Your task to perform on an android device: Open Android settings Image 0: 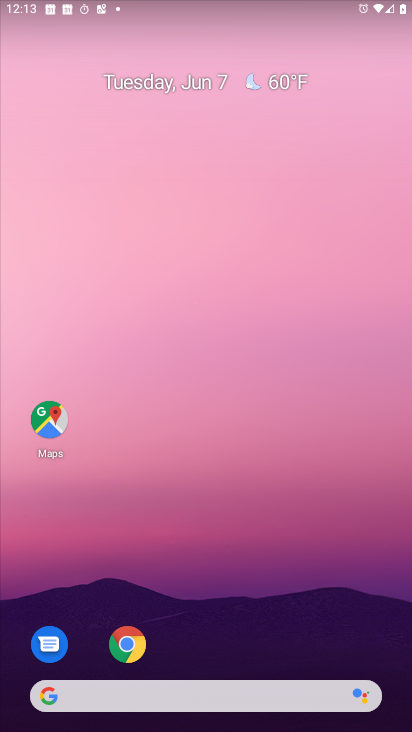
Step 0: drag from (116, 724) to (140, 76)
Your task to perform on an android device: Open Android settings Image 1: 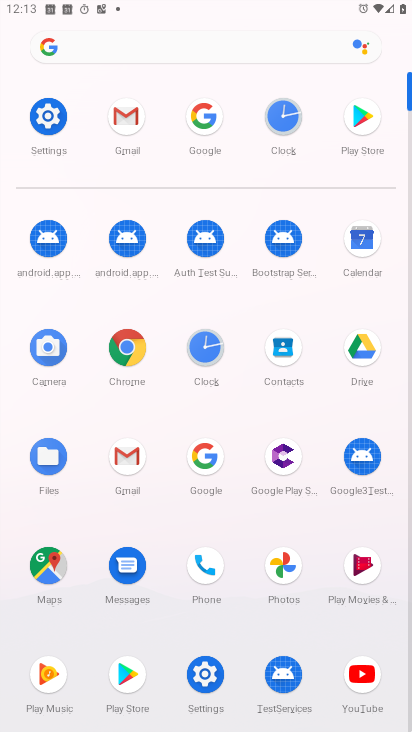
Step 1: click (54, 133)
Your task to perform on an android device: Open Android settings Image 2: 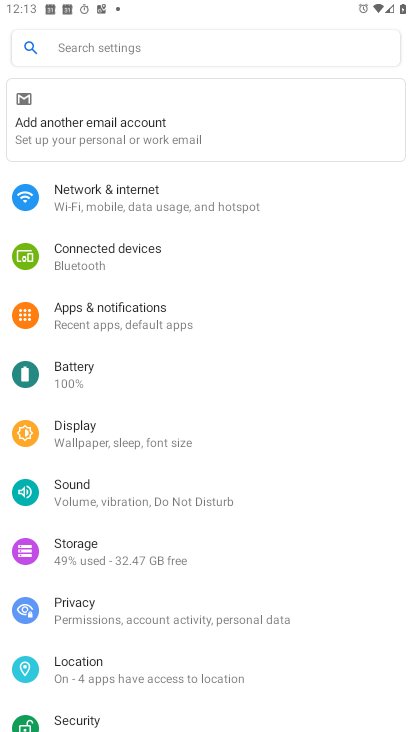
Step 2: task complete